Your task to perform on an android device: check battery use Image 0: 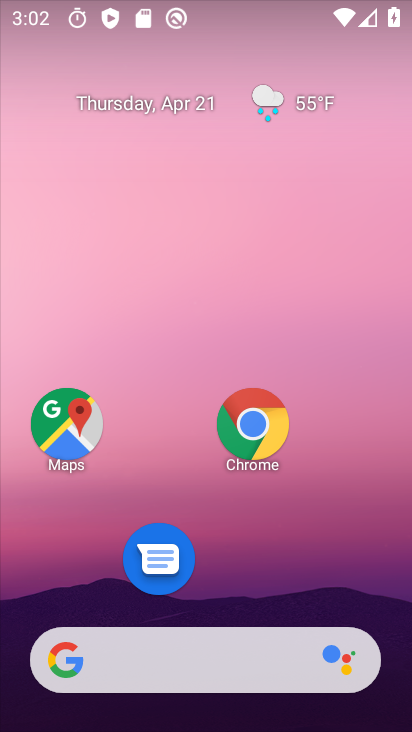
Step 0: drag from (252, 310) to (230, 89)
Your task to perform on an android device: check battery use Image 1: 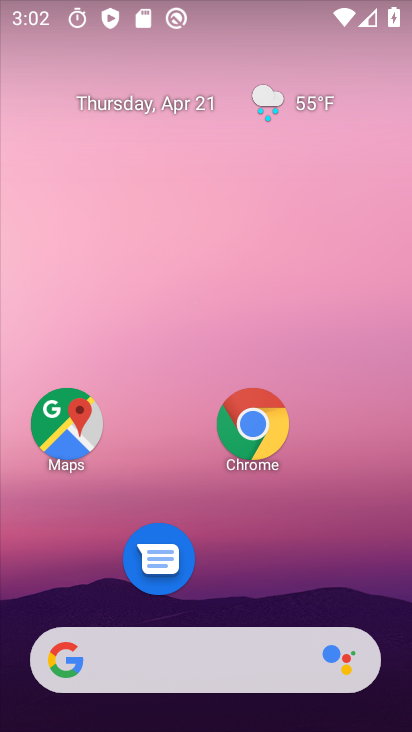
Step 1: drag from (240, 534) to (232, 30)
Your task to perform on an android device: check battery use Image 2: 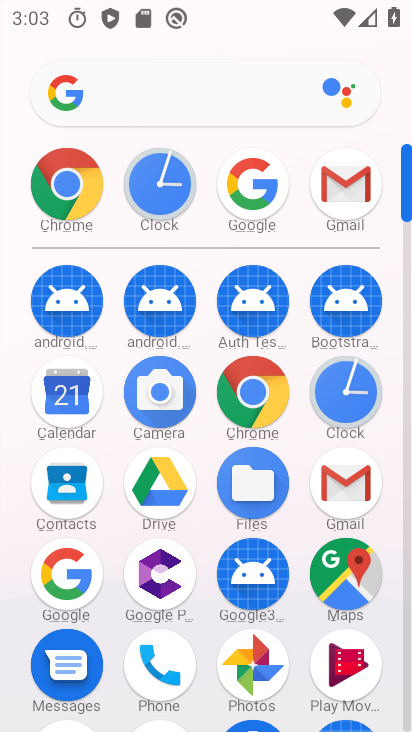
Step 2: drag from (108, 620) to (108, 140)
Your task to perform on an android device: check battery use Image 3: 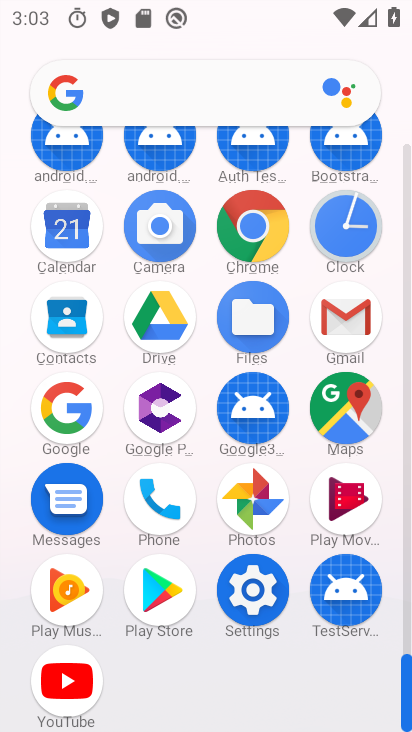
Step 3: click (253, 584)
Your task to perform on an android device: check battery use Image 4: 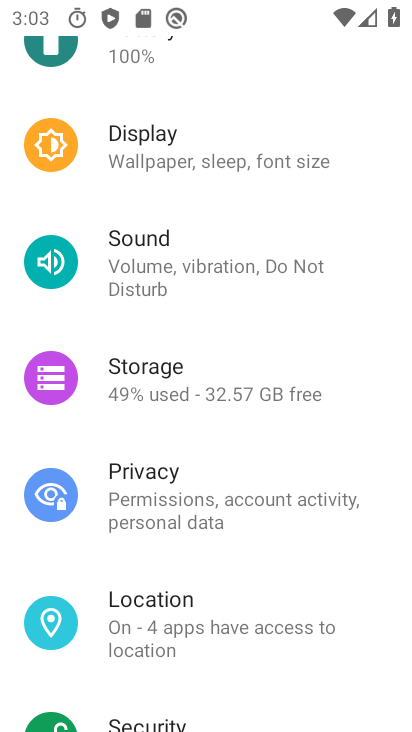
Step 4: drag from (217, 535) to (240, 656)
Your task to perform on an android device: check battery use Image 5: 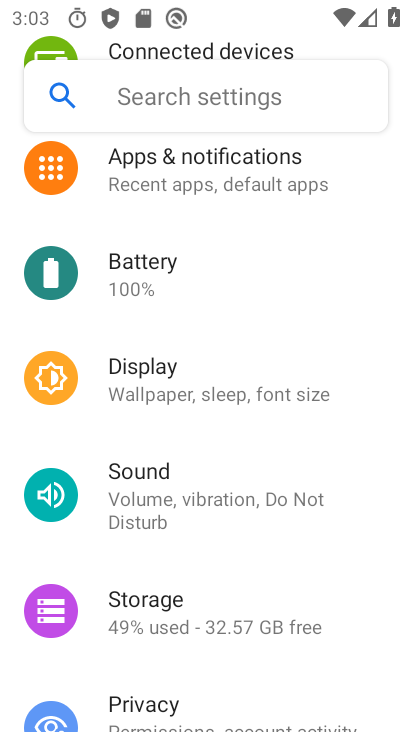
Step 5: click (137, 276)
Your task to perform on an android device: check battery use Image 6: 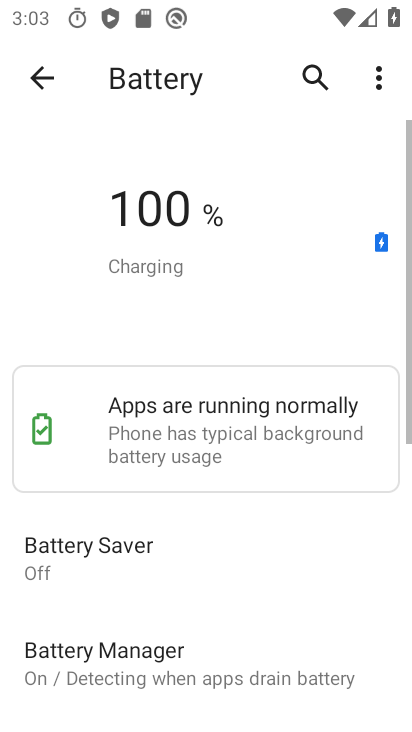
Step 6: task complete